Your task to perform on an android device: Open the Play Movies app and select the watchlist tab. Image 0: 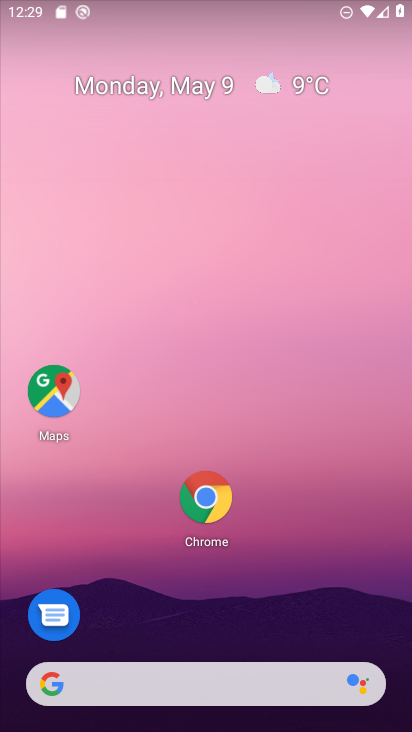
Step 0: drag from (300, 566) to (291, 109)
Your task to perform on an android device: Open the Play Movies app and select the watchlist tab. Image 1: 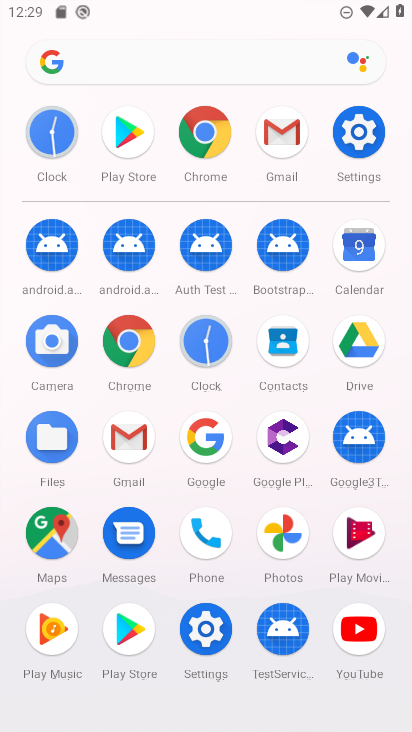
Step 1: click (366, 530)
Your task to perform on an android device: Open the Play Movies app and select the watchlist tab. Image 2: 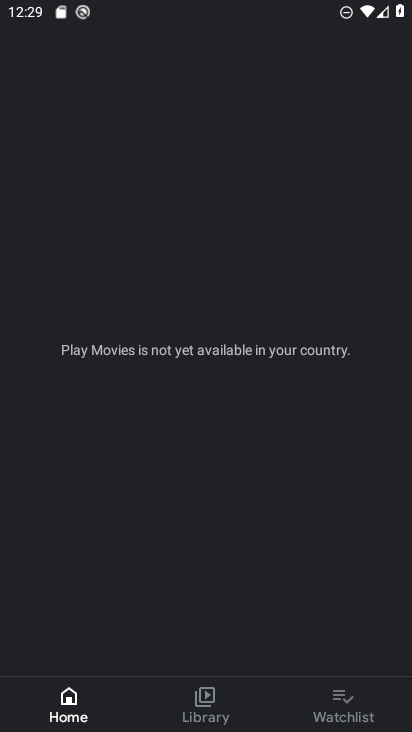
Step 2: click (321, 687)
Your task to perform on an android device: Open the Play Movies app and select the watchlist tab. Image 3: 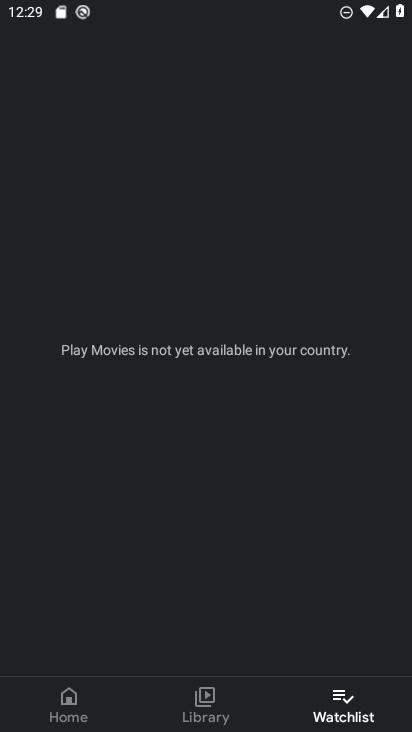
Step 3: task complete